Your task to perform on an android device: What's the weather going to be this weekend? Image 0: 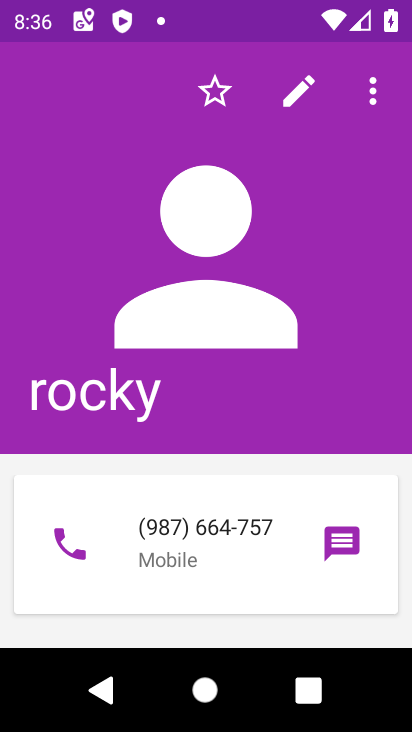
Step 0: press home button
Your task to perform on an android device: What's the weather going to be this weekend? Image 1: 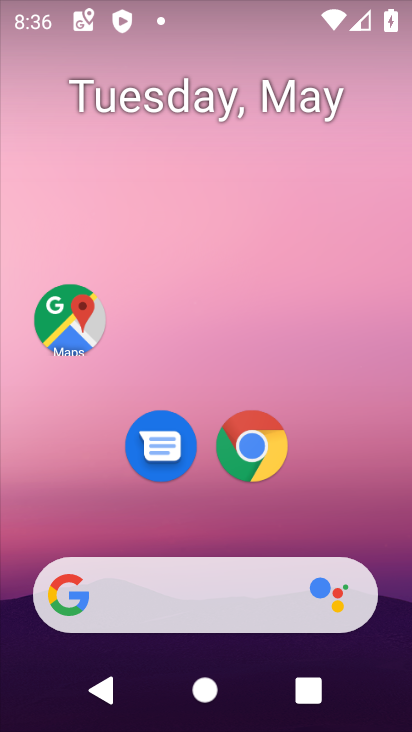
Step 1: click (111, 603)
Your task to perform on an android device: What's the weather going to be this weekend? Image 2: 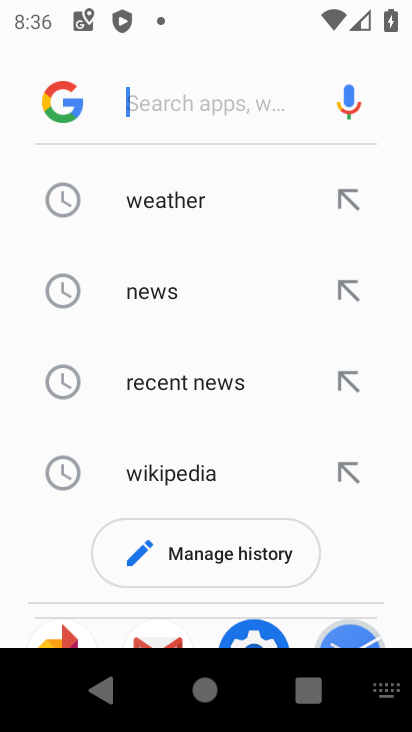
Step 2: click (146, 204)
Your task to perform on an android device: What's the weather going to be this weekend? Image 3: 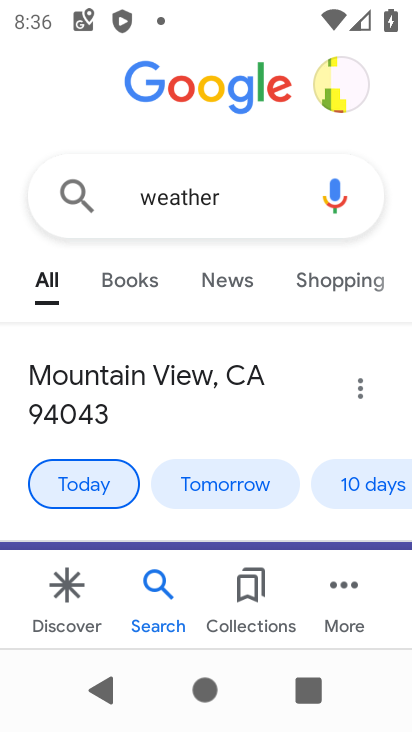
Step 3: click (366, 482)
Your task to perform on an android device: What's the weather going to be this weekend? Image 4: 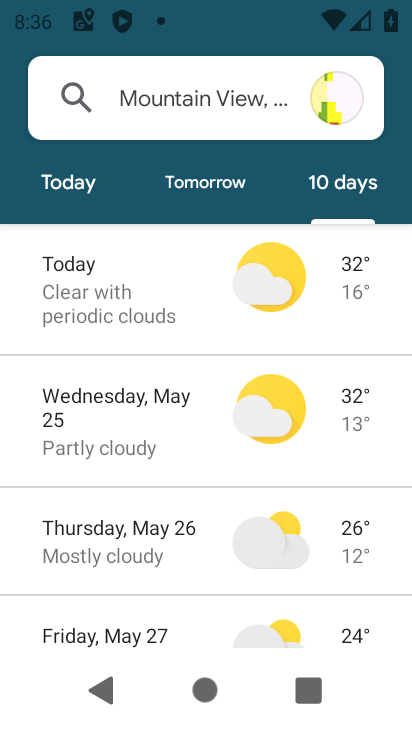
Step 4: task complete